Your task to perform on an android device: What's on my calendar tomorrow? Image 0: 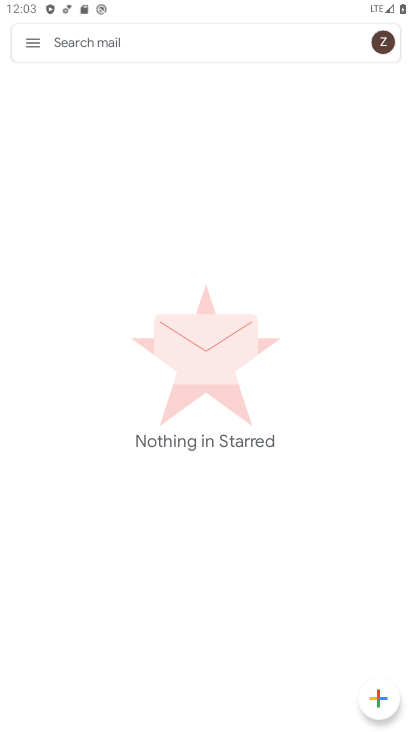
Step 0: press home button
Your task to perform on an android device: What's on my calendar tomorrow? Image 1: 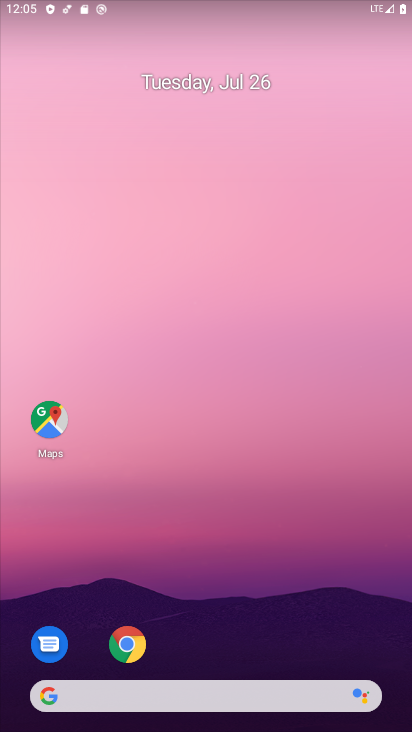
Step 1: drag from (224, 688) to (360, 21)
Your task to perform on an android device: What's on my calendar tomorrow? Image 2: 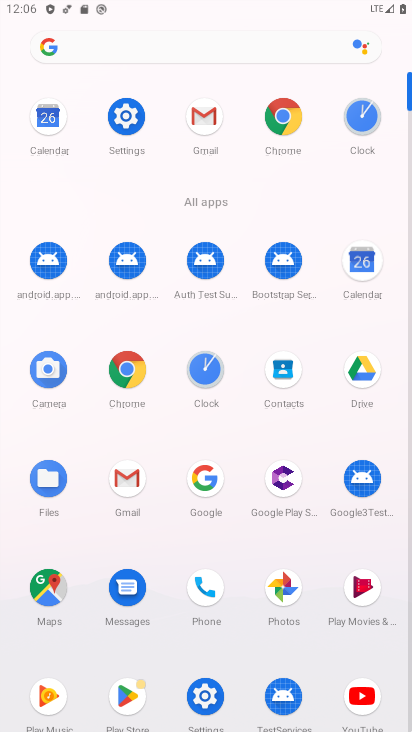
Step 2: click (363, 268)
Your task to perform on an android device: What's on my calendar tomorrow? Image 3: 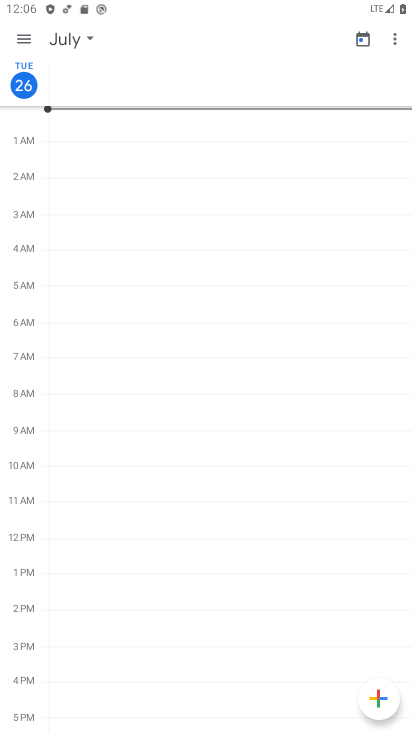
Step 3: click (71, 38)
Your task to perform on an android device: What's on my calendar tomorrow? Image 4: 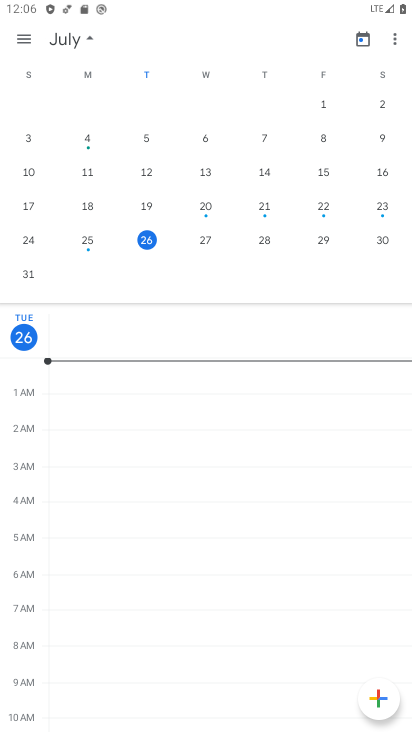
Step 4: click (203, 242)
Your task to perform on an android device: What's on my calendar tomorrow? Image 5: 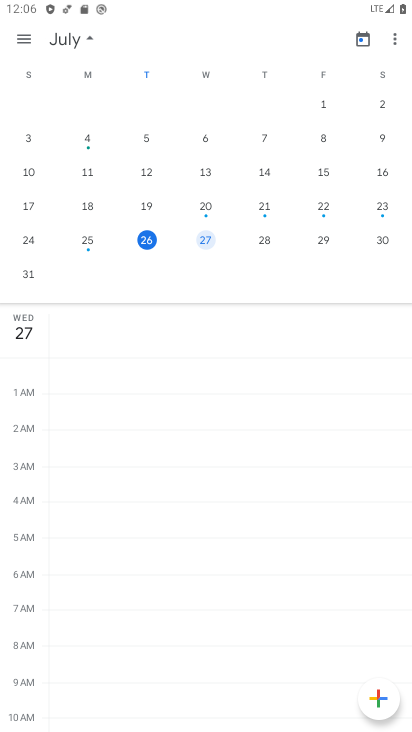
Step 5: task complete